Your task to perform on an android device: Open Google Chrome Image 0: 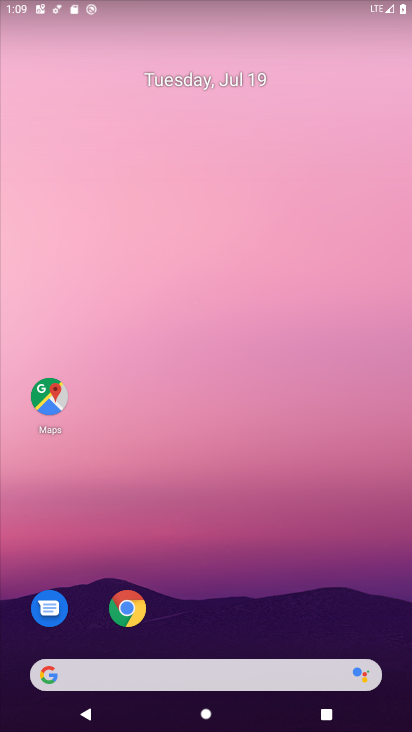
Step 0: drag from (244, 580) to (284, 91)
Your task to perform on an android device: Open Google Chrome Image 1: 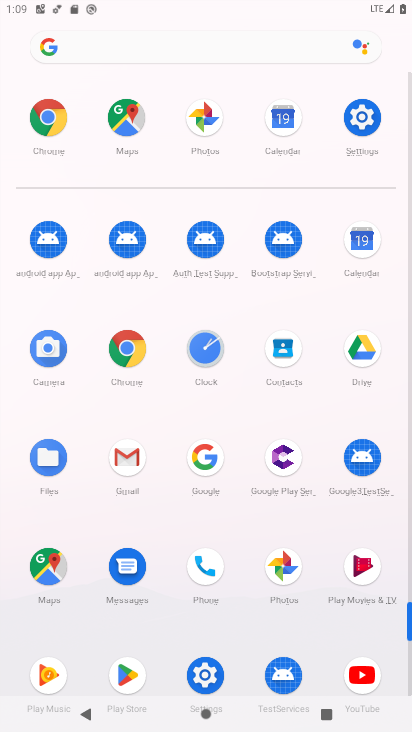
Step 1: click (131, 350)
Your task to perform on an android device: Open Google Chrome Image 2: 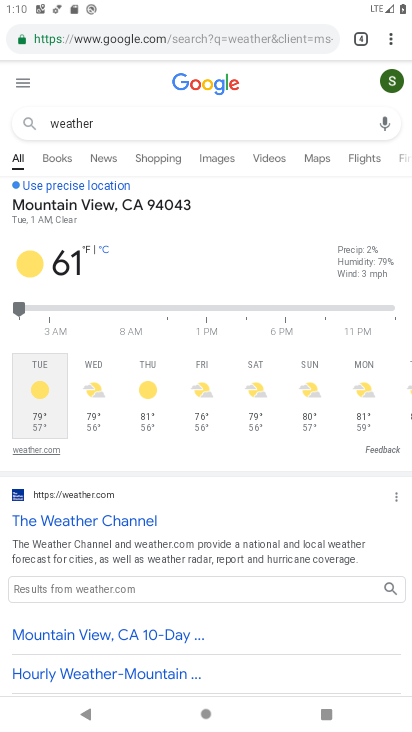
Step 2: task complete